Your task to perform on an android device: Go to notification settings Image 0: 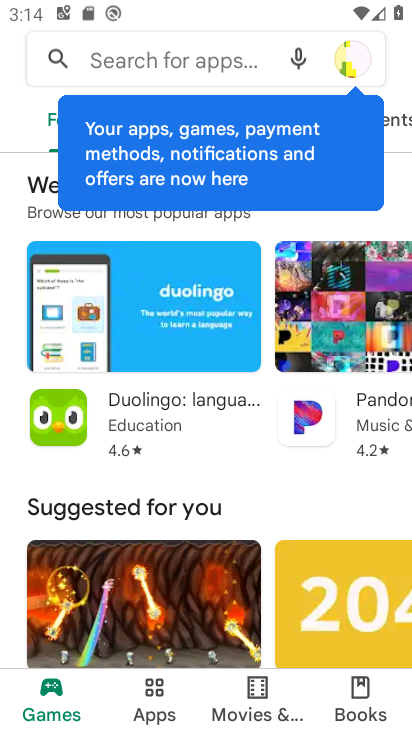
Step 0: press home button
Your task to perform on an android device: Go to notification settings Image 1: 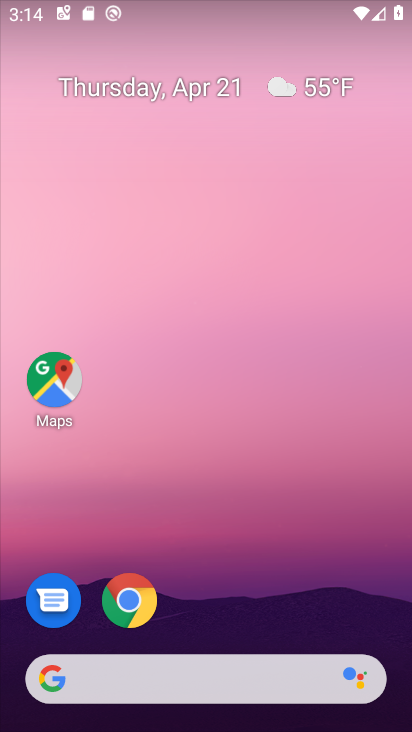
Step 1: drag from (158, 672) to (293, 113)
Your task to perform on an android device: Go to notification settings Image 2: 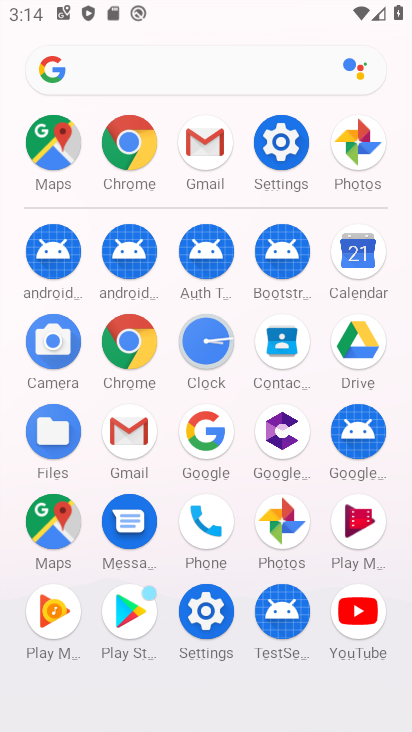
Step 2: click (281, 149)
Your task to perform on an android device: Go to notification settings Image 3: 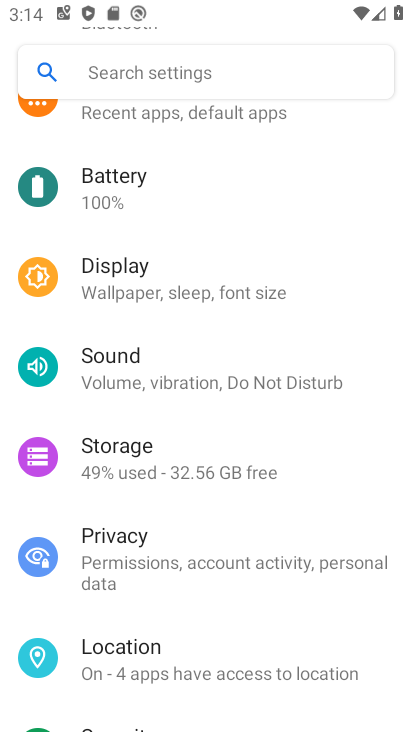
Step 3: drag from (265, 198) to (201, 615)
Your task to perform on an android device: Go to notification settings Image 4: 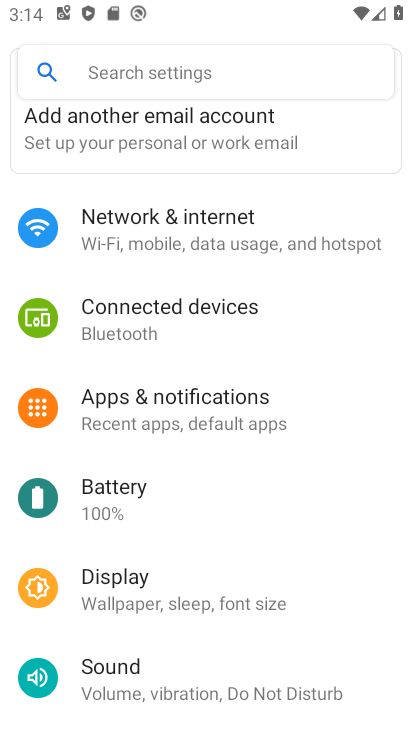
Step 4: click (173, 411)
Your task to perform on an android device: Go to notification settings Image 5: 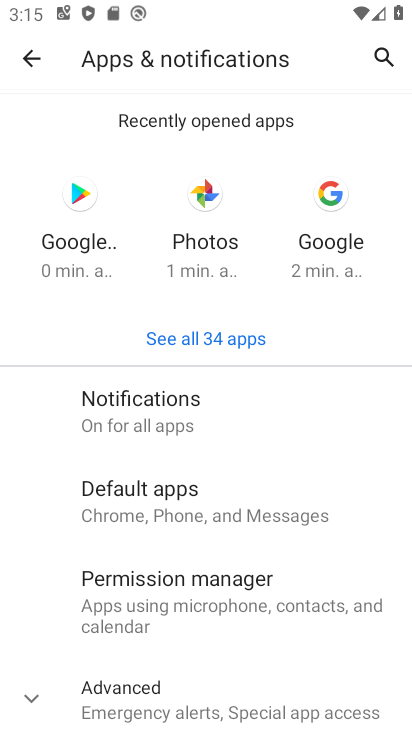
Step 5: click (151, 418)
Your task to perform on an android device: Go to notification settings Image 6: 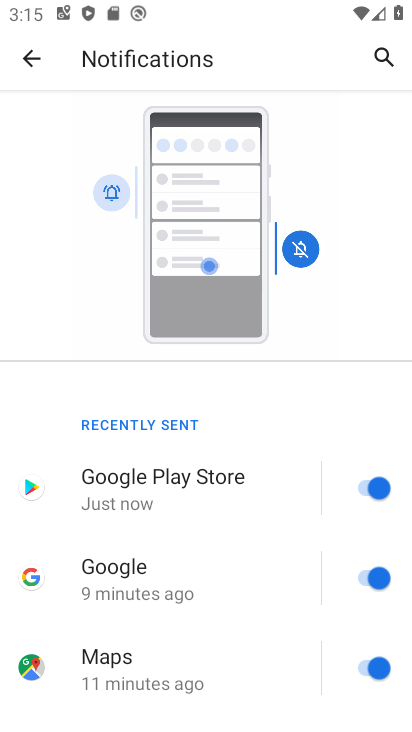
Step 6: task complete